Your task to perform on an android device: Open privacy settings Image 0: 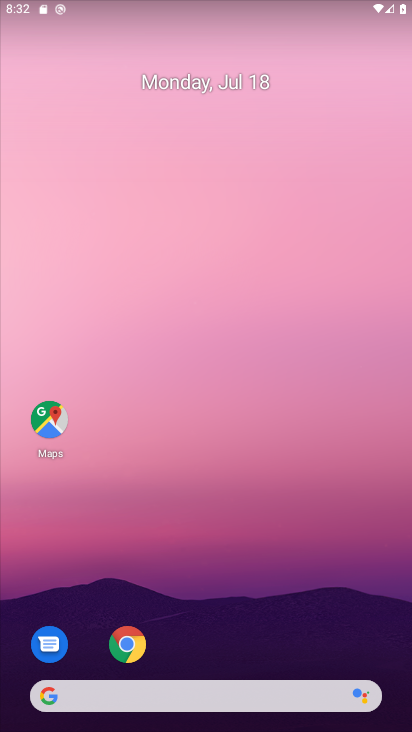
Step 0: drag from (236, 654) to (289, 61)
Your task to perform on an android device: Open privacy settings Image 1: 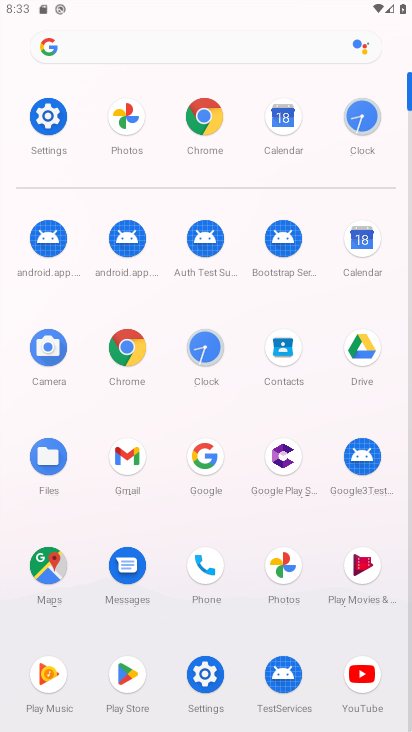
Step 1: click (208, 683)
Your task to perform on an android device: Open privacy settings Image 2: 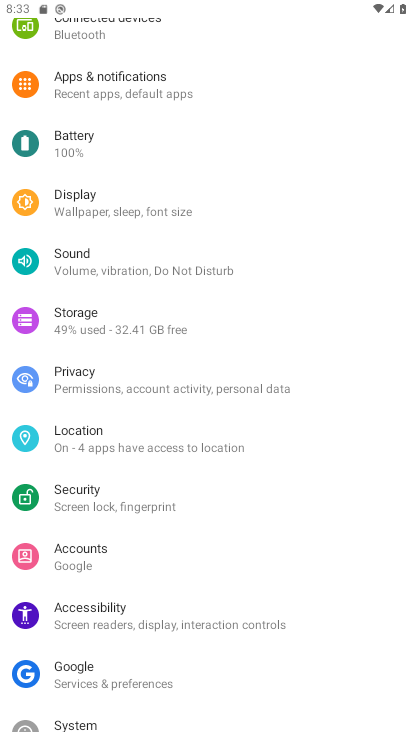
Step 2: click (107, 375)
Your task to perform on an android device: Open privacy settings Image 3: 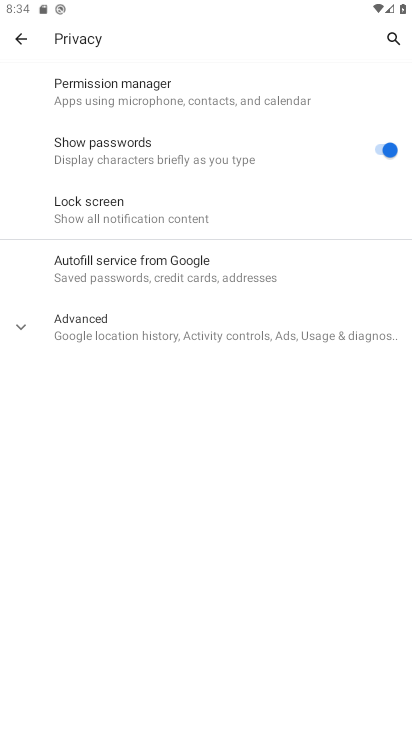
Step 3: click (32, 40)
Your task to perform on an android device: Open privacy settings Image 4: 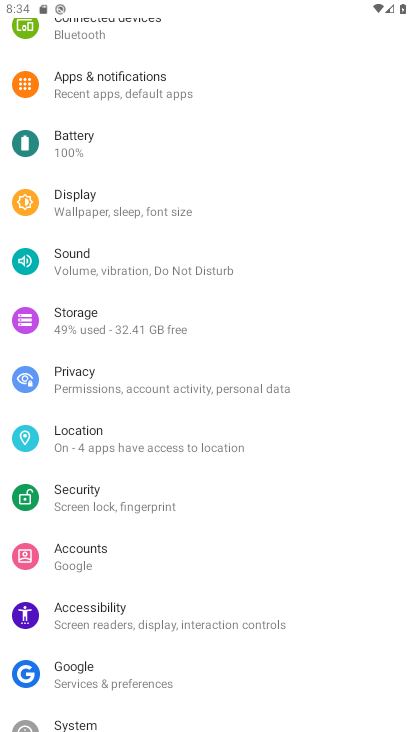
Step 4: click (198, 401)
Your task to perform on an android device: Open privacy settings Image 5: 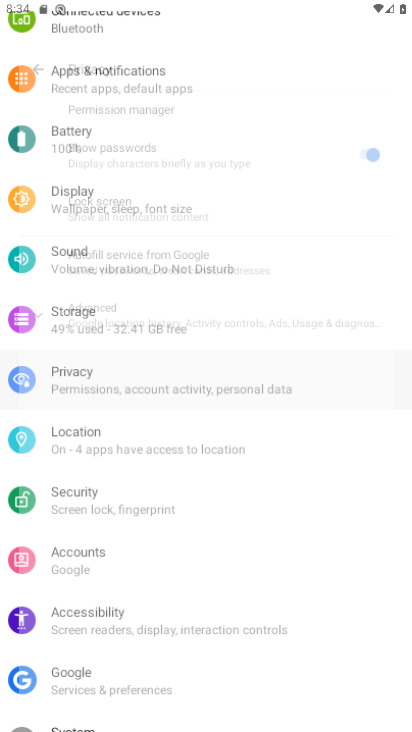
Step 5: task complete